Your task to perform on an android device: change the clock display to analog Image 0: 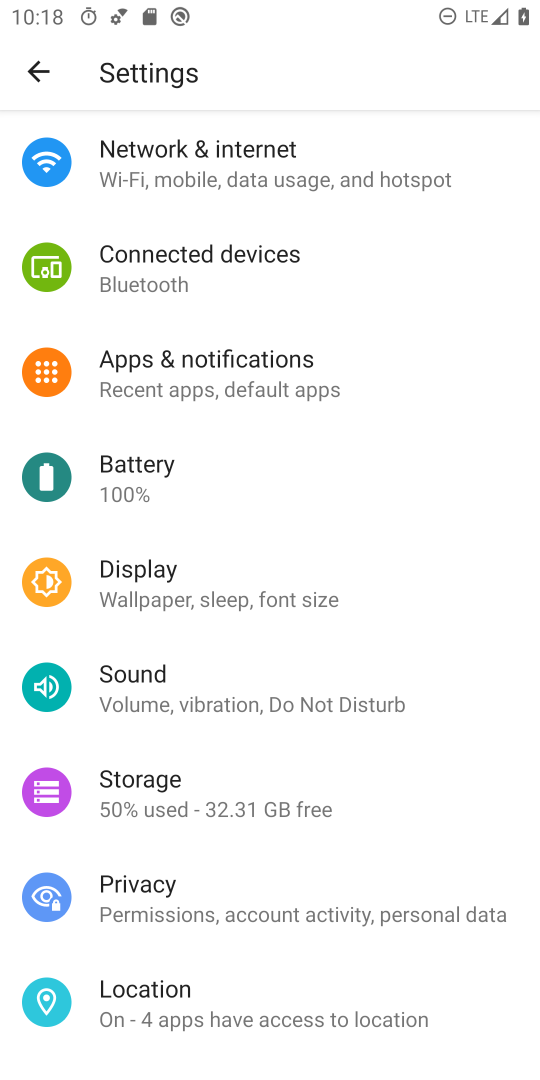
Step 0: press home button
Your task to perform on an android device: change the clock display to analog Image 1: 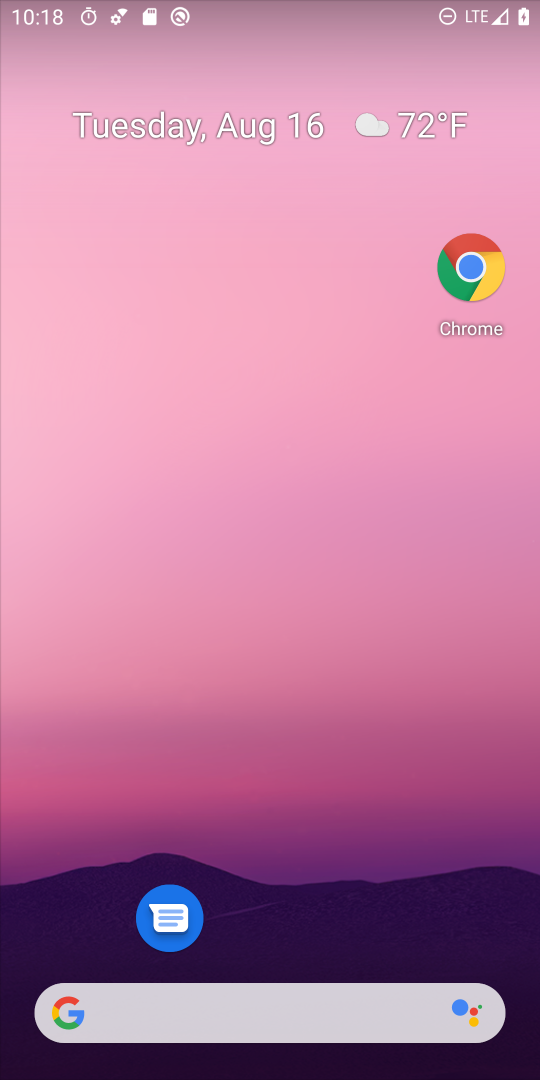
Step 1: drag from (276, 962) to (284, 355)
Your task to perform on an android device: change the clock display to analog Image 2: 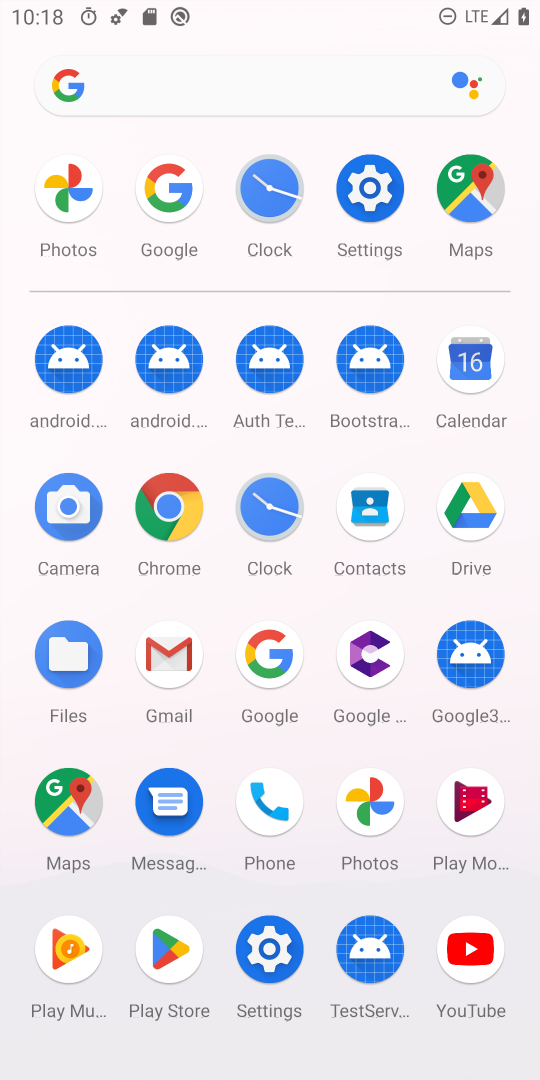
Step 2: click (268, 211)
Your task to perform on an android device: change the clock display to analog Image 3: 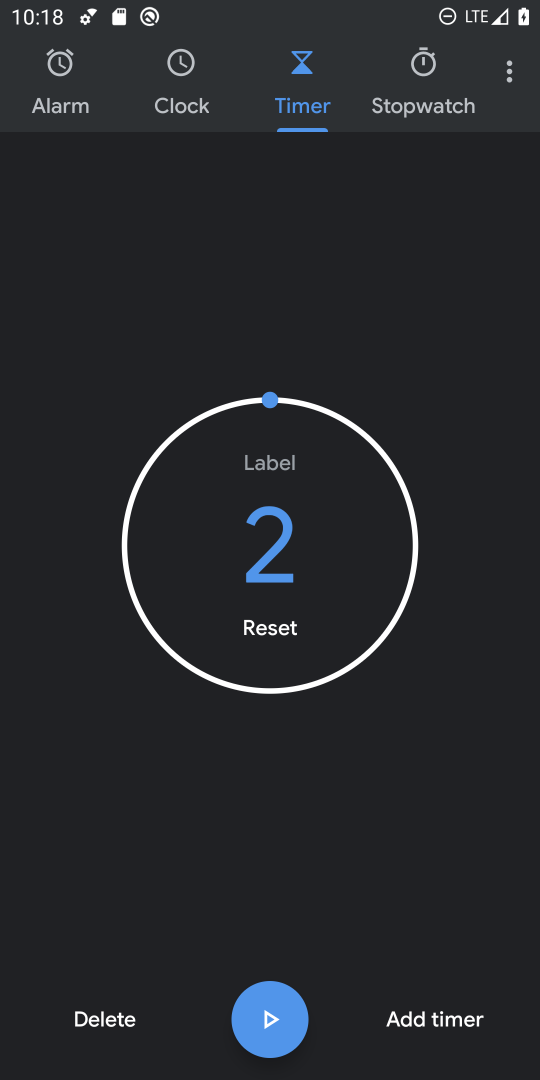
Step 3: click (511, 74)
Your task to perform on an android device: change the clock display to analog Image 4: 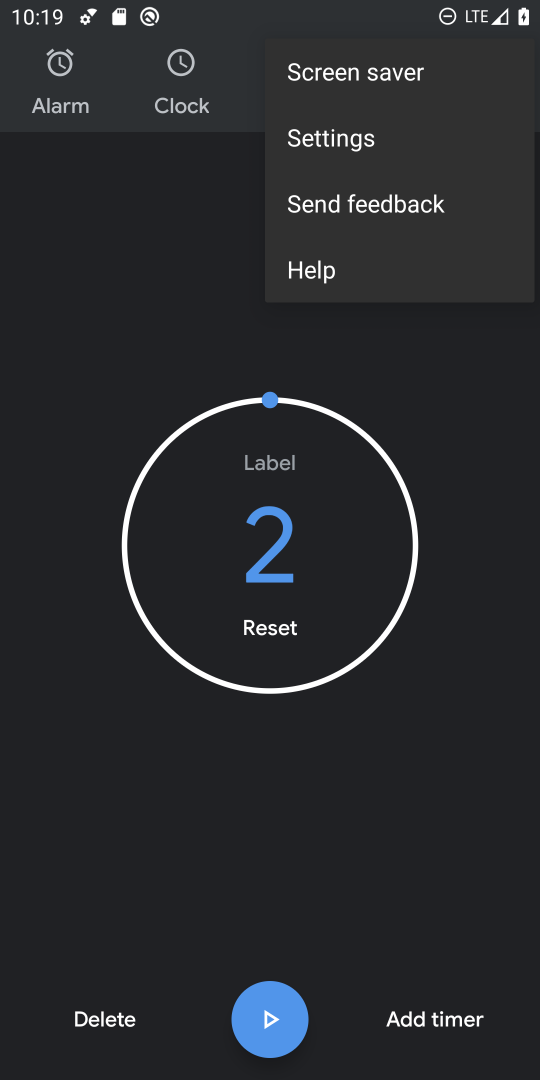
Step 4: click (326, 151)
Your task to perform on an android device: change the clock display to analog Image 5: 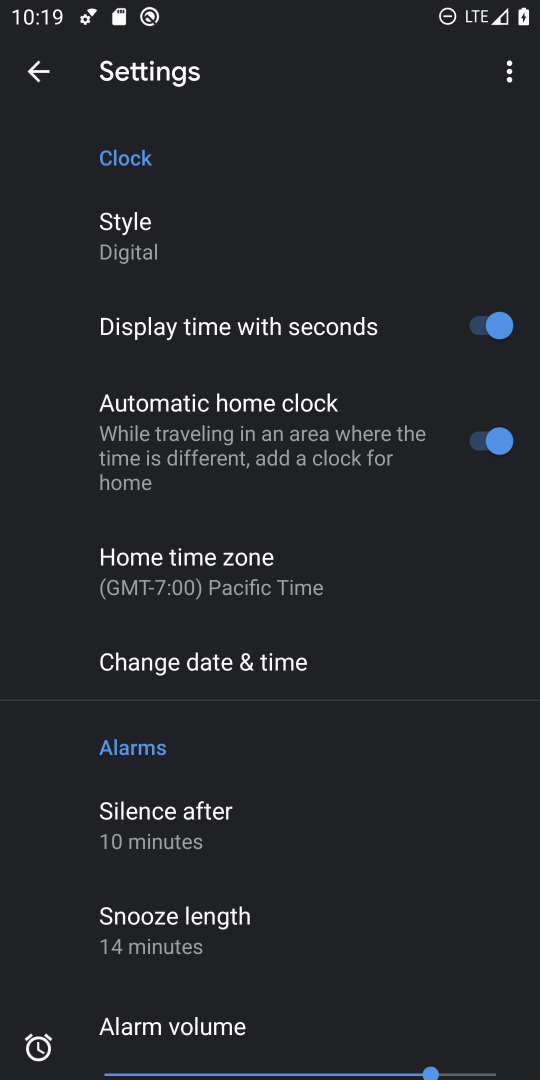
Step 5: click (214, 259)
Your task to perform on an android device: change the clock display to analog Image 6: 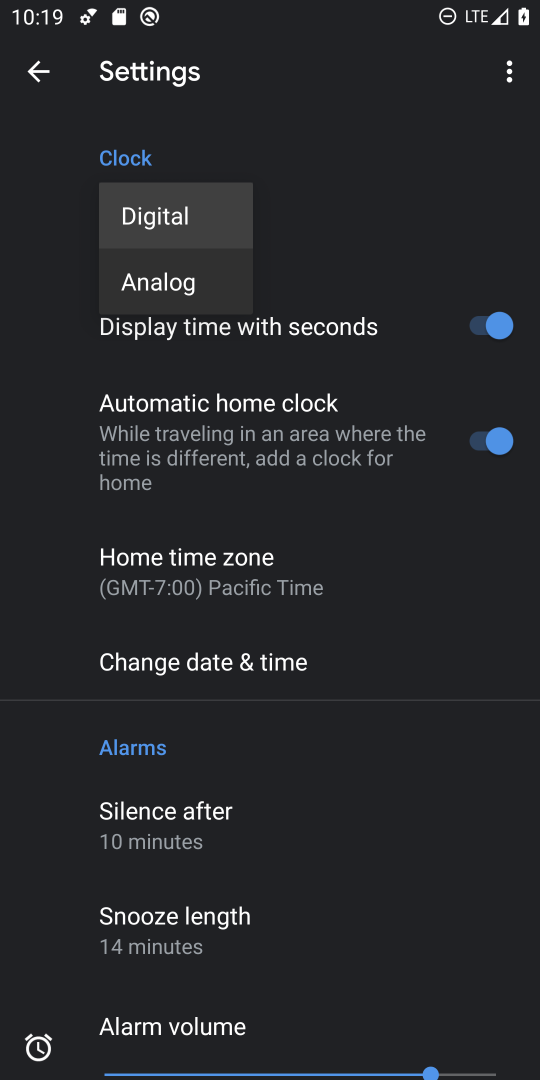
Step 6: click (194, 297)
Your task to perform on an android device: change the clock display to analog Image 7: 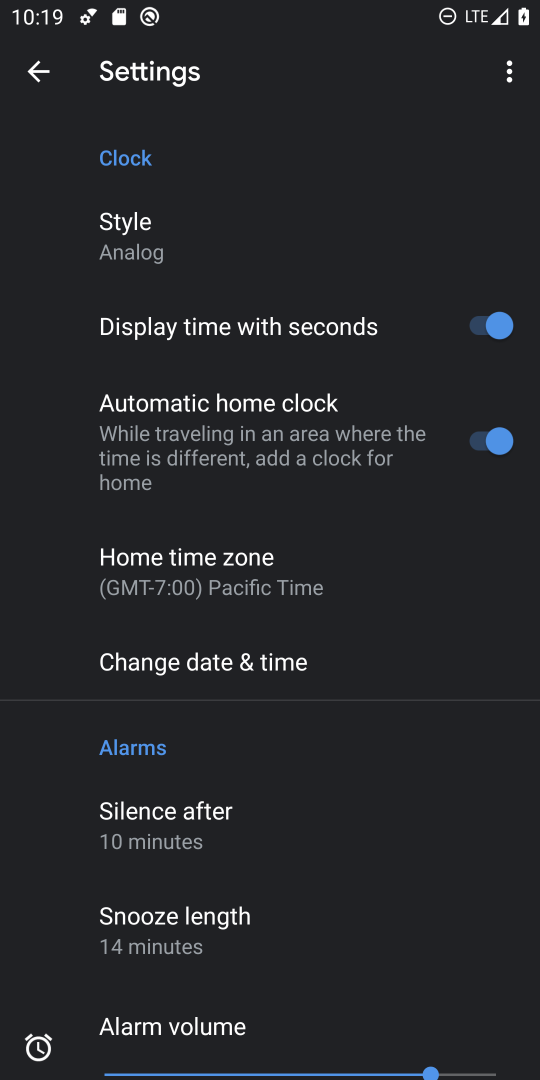
Step 7: task complete